Your task to perform on an android device: turn off translation in the chrome app Image 0: 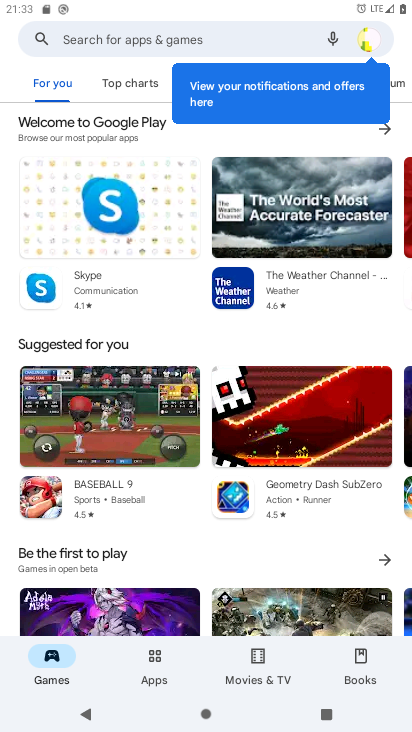
Step 0: press home button
Your task to perform on an android device: turn off translation in the chrome app Image 1: 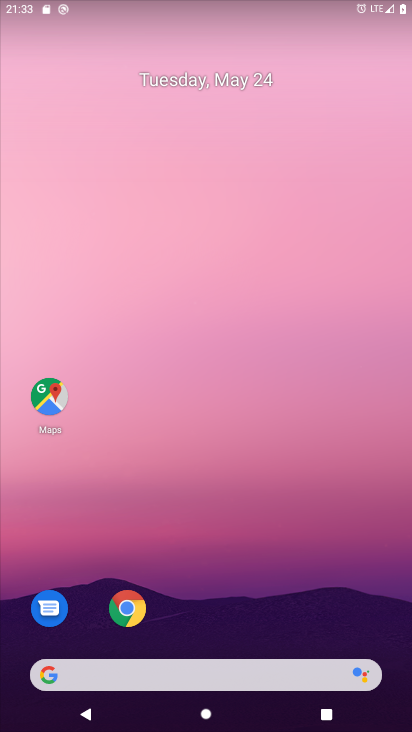
Step 1: drag from (200, 612) to (185, 0)
Your task to perform on an android device: turn off translation in the chrome app Image 2: 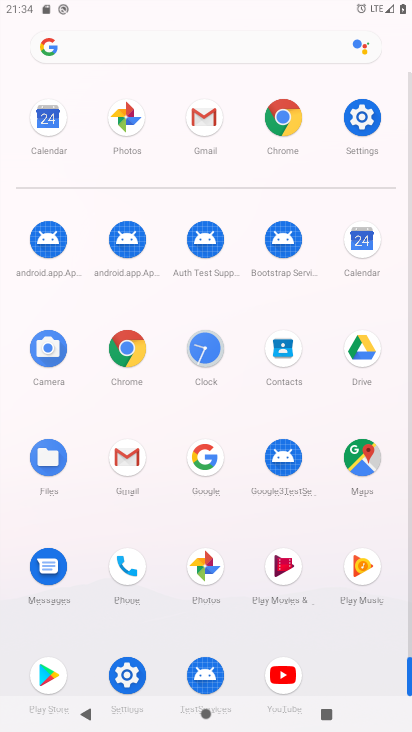
Step 2: click (123, 365)
Your task to perform on an android device: turn off translation in the chrome app Image 3: 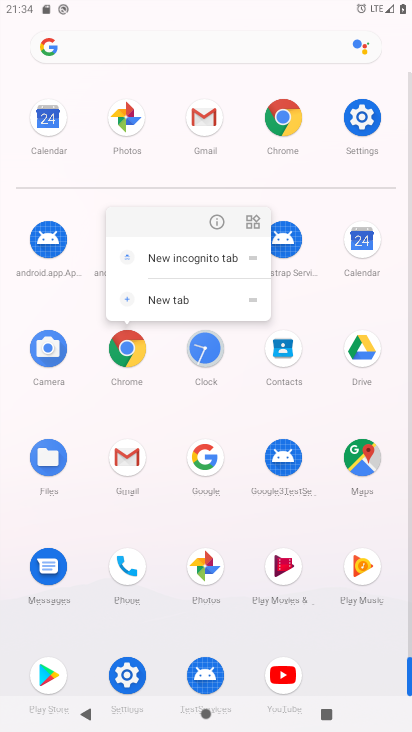
Step 3: click (126, 340)
Your task to perform on an android device: turn off translation in the chrome app Image 4: 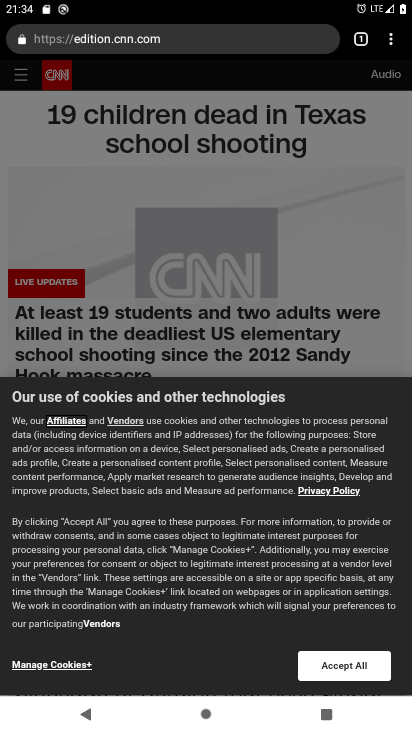
Step 4: click (393, 35)
Your task to perform on an android device: turn off translation in the chrome app Image 5: 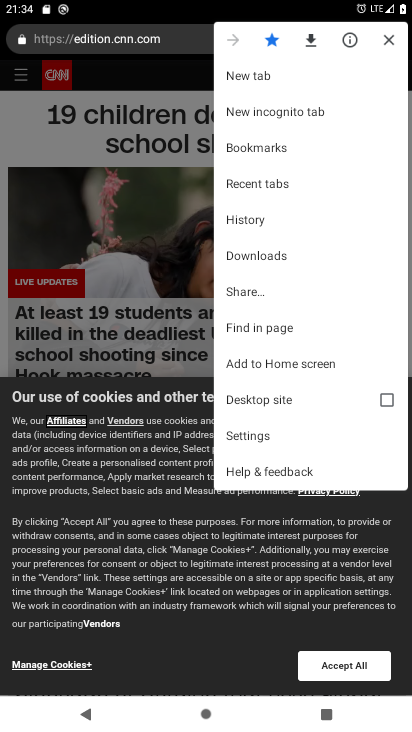
Step 5: click (252, 439)
Your task to perform on an android device: turn off translation in the chrome app Image 6: 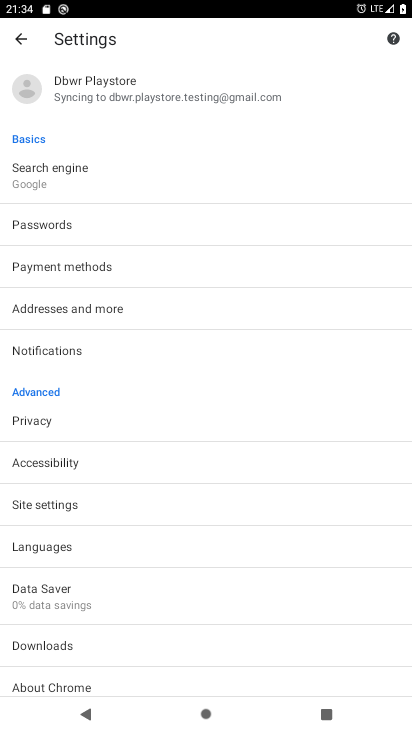
Step 6: click (110, 552)
Your task to perform on an android device: turn off translation in the chrome app Image 7: 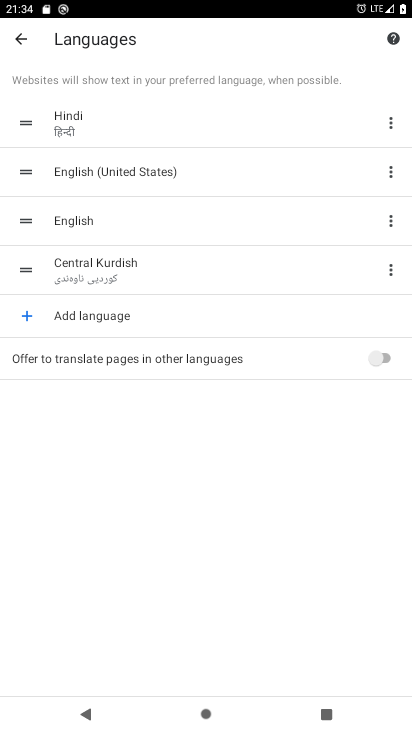
Step 7: task complete